Your task to perform on an android device: toggle show notifications on the lock screen Image 0: 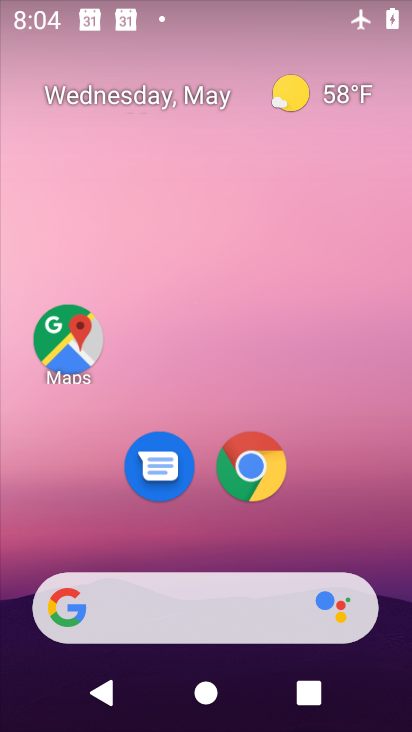
Step 0: press home button
Your task to perform on an android device: toggle show notifications on the lock screen Image 1: 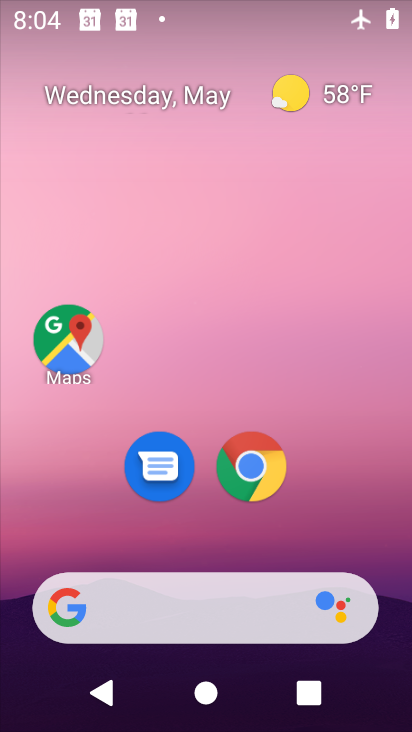
Step 1: drag from (198, 548) to (295, 90)
Your task to perform on an android device: toggle show notifications on the lock screen Image 2: 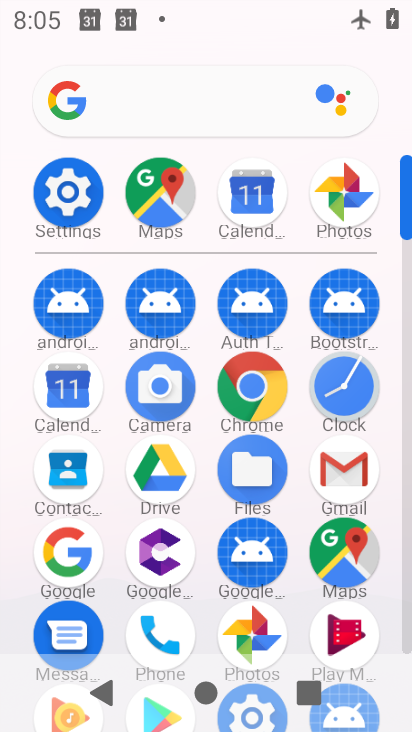
Step 2: click (66, 187)
Your task to perform on an android device: toggle show notifications on the lock screen Image 3: 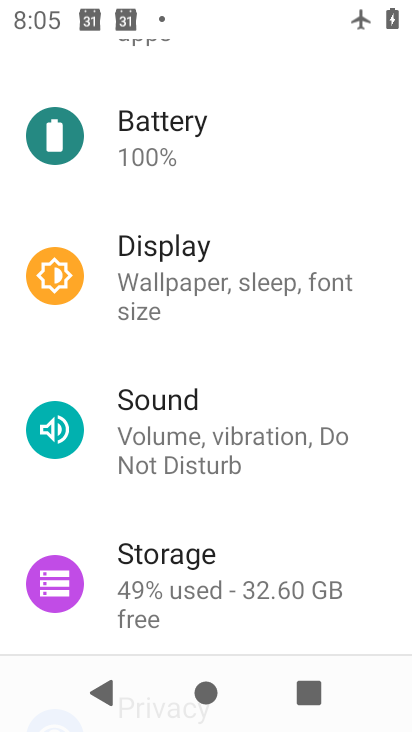
Step 3: drag from (184, 161) to (178, 608)
Your task to perform on an android device: toggle show notifications on the lock screen Image 4: 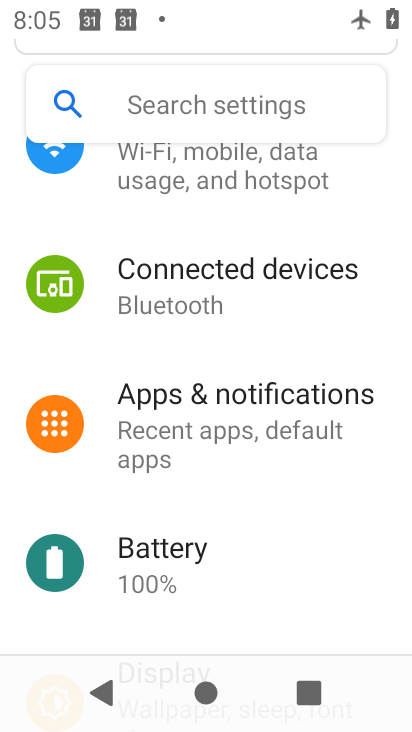
Step 4: click (201, 404)
Your task to perform on an android device: toggle show notifications on the lock screen Image 5: 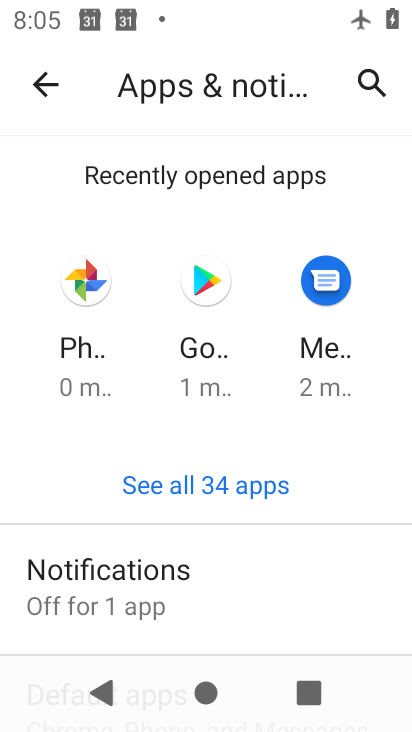
Step 5: click (210, 589)
Your task to perform on an android device: toggle show notifications on the lock screen Image 6: 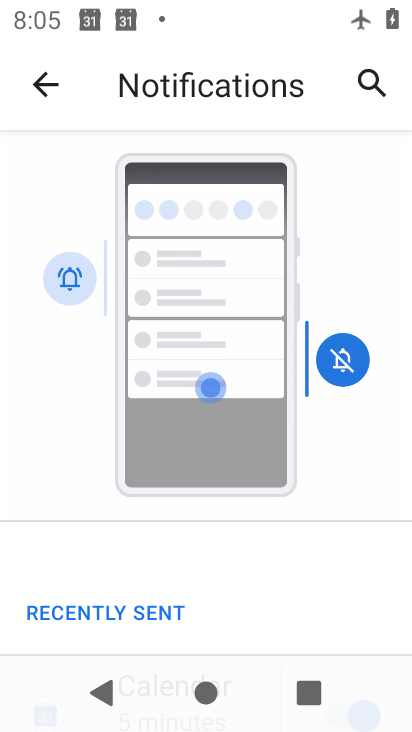
Step 6: drag from (220, 607) to (254, 238)
Your task to perform on an android device: toggle show notifications on the lock screen Image 7: 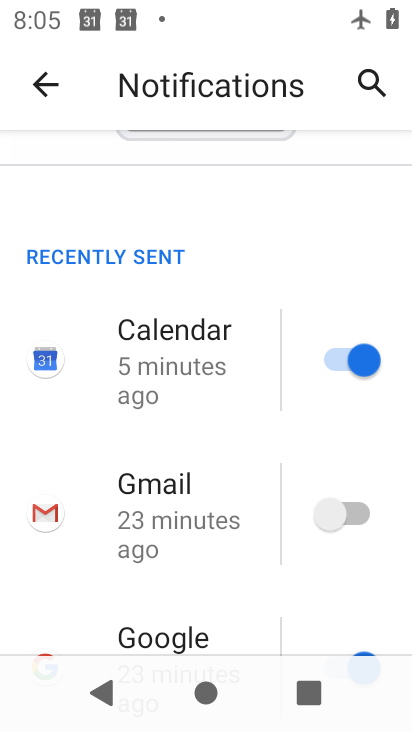
Step 7: drag from (198, 611) to (222, 223)
Your task to perform on an android device: toggle show notifications on the lock screen Image 8: 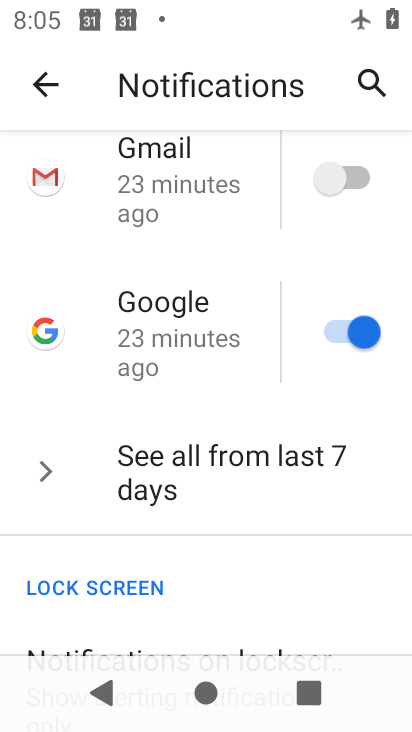
Step 8: drag from (189, 577) to (209, 302)
Your task to perform on an android device: toggle show notifications on the lock screen Image 9: 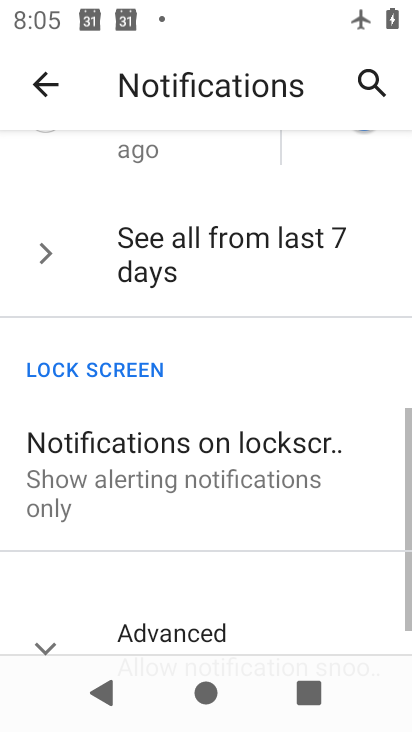
Step 9: click (210, 257)
Your task to perform on an android device: toggle show notifications on the lock screen Image 10: 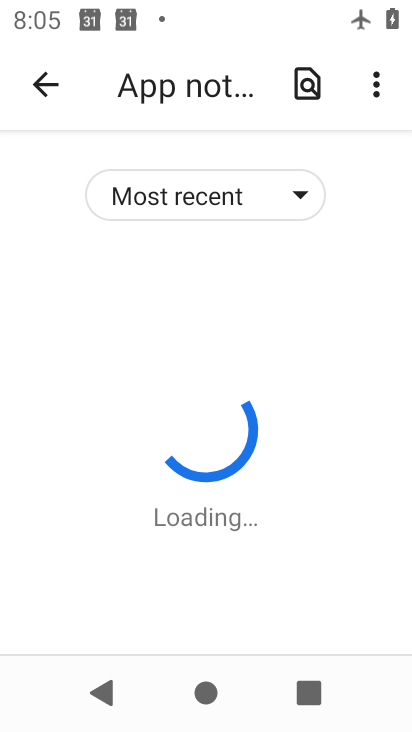
Step 10: click (186, 417)
Your task to perform on an android device: toggle show notifications on the lock screen Image 11: 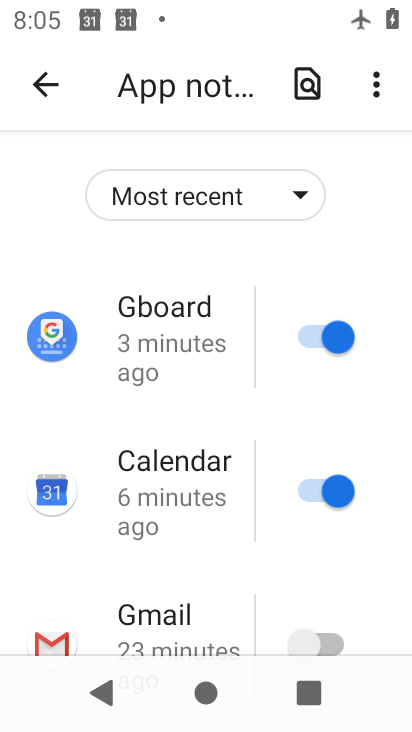
Step 11: click (53, 90)
Your task to perform on an android device: toggle show notifications on the lock screen Image 12: 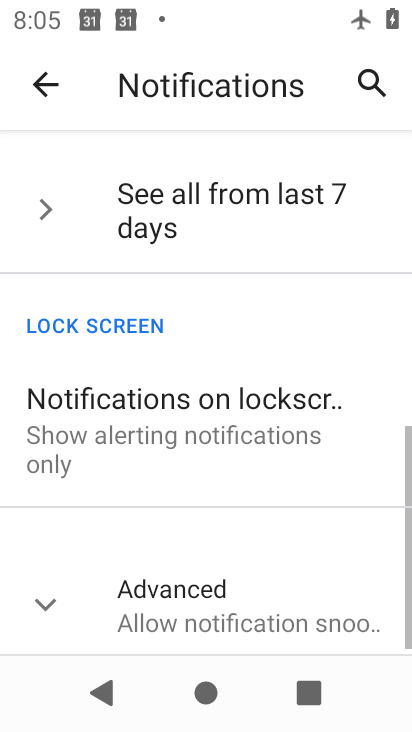
Step 12: click (180, 459)
Your task to perform on an android device: toggle show notifications on the lock screen Image 13: 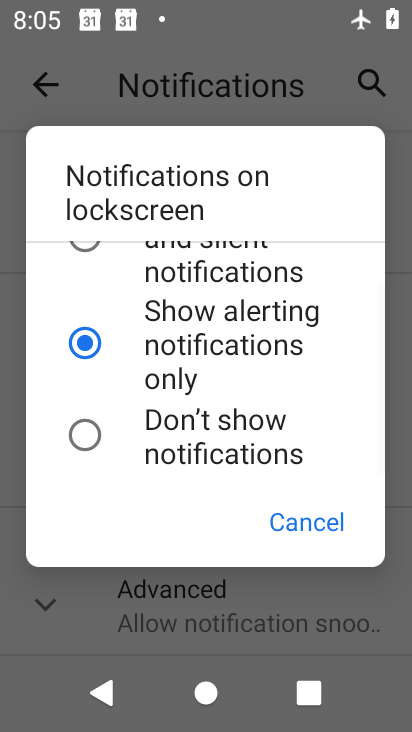
Step 13: click (87, 246)
Your task to perform on an android device: toggle show notifications on the lock screen Image 14: 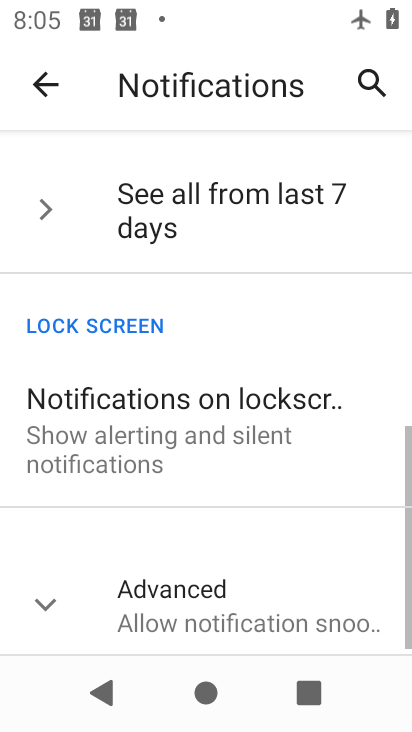
Step 14: task complete